Your task to perform on an android device: turn off sleep mode Image 0: 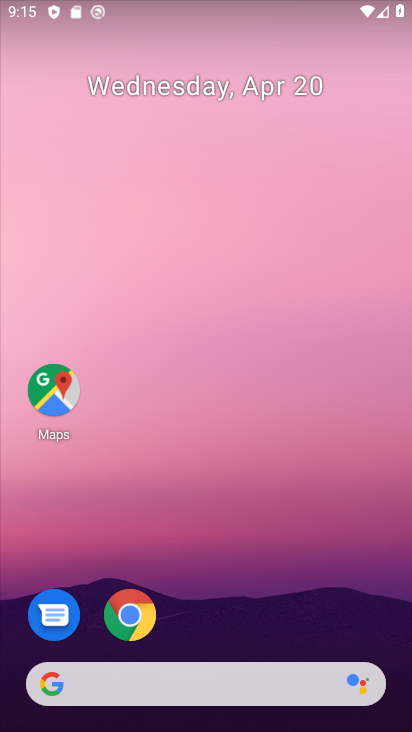
Step 0: drag from (249, 541) to (235, 41)
Your task to perform on an android device: turn off sleep mode Image 1: 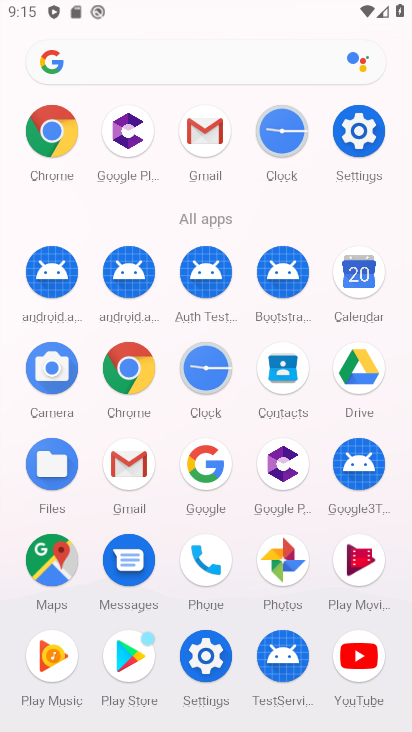
Step 1: click (358, 127)
Your task to perform on an android device: turn off sleep mode Image 2: 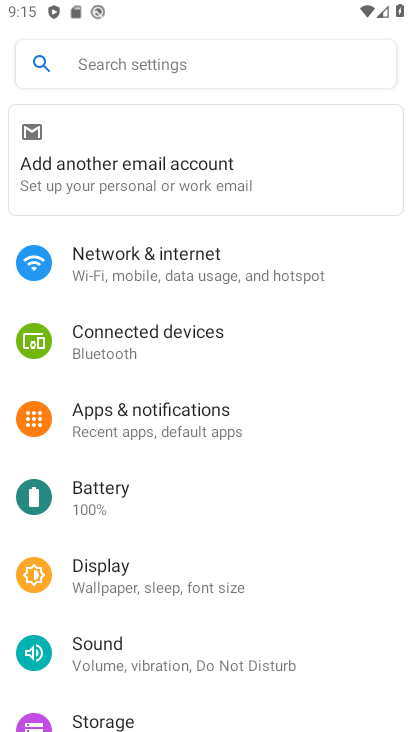
Step 2: click (99, 569)
Your task to perform on an android device: turn off sleep mode Image 3: 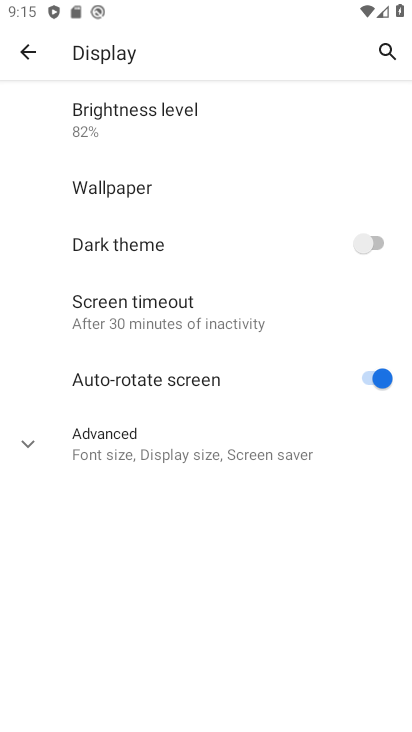
Step 3: task complete